Your task to perform on an android device: toggle show notifications on the lock screen Image 0: 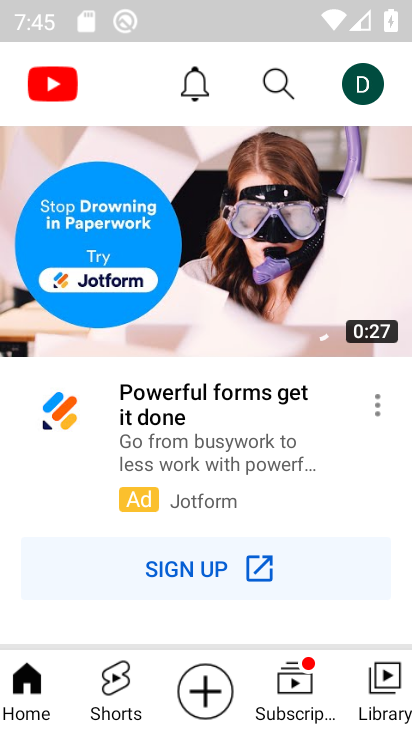
Step 0: press home button
Your task to perform on an android device: toggle show notifications on the lock screen Image 1: 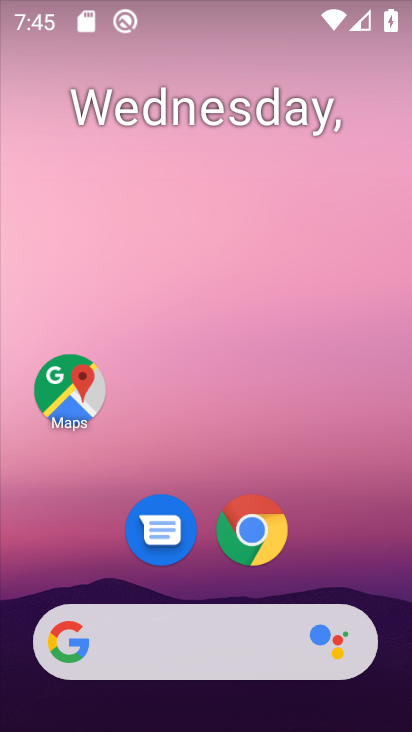
Step 1: drag from (390, 646) to (338, 139)
Your task to perform on an android device: toggle show notifications on the lock screen Image 2: 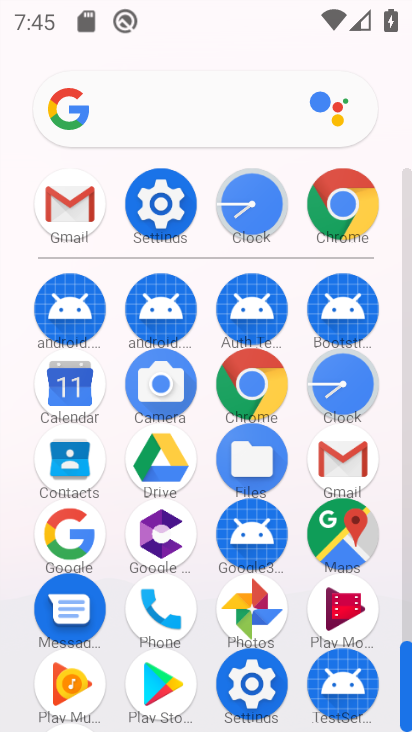
Step 2: click (270, 669)
Your task to perform on an android device: toggle show notifications on the lock screen Image 3: 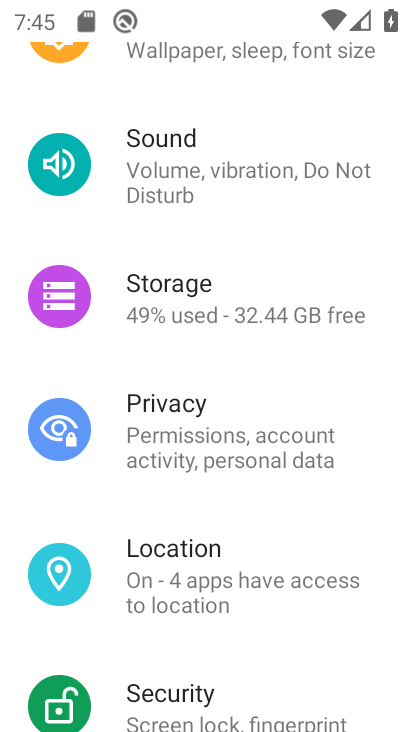
Step 3: drag from (270, 669) to (307, 310)
Your task to perform on an android device: toggle show notifications on the lock screen Image 4: 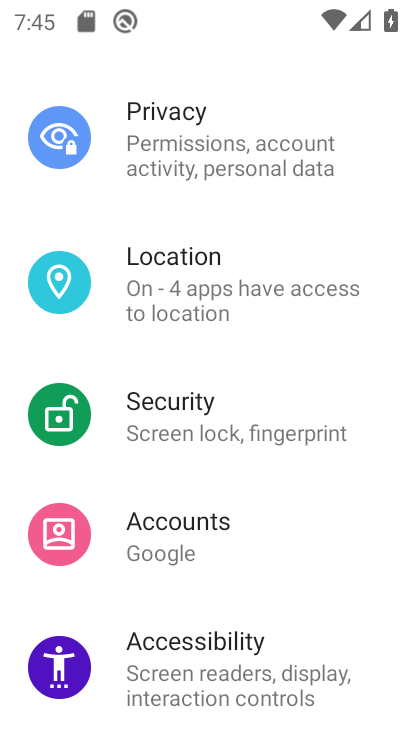
Step 4: drag from (229, 202) to (275, 661)
Your task to perform on an android device: toggle show notifications on the lock screen Image 5: 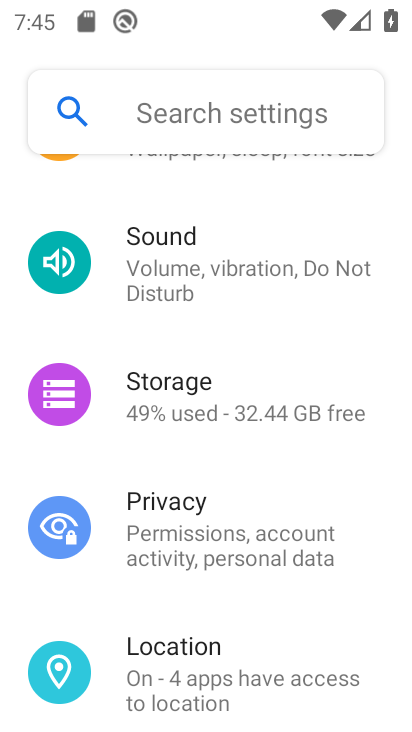
Step 5: drag from (240, 317) to (251, 648)
Your task to perform on an android device: toggle show notifications on the lock screen Image 6: 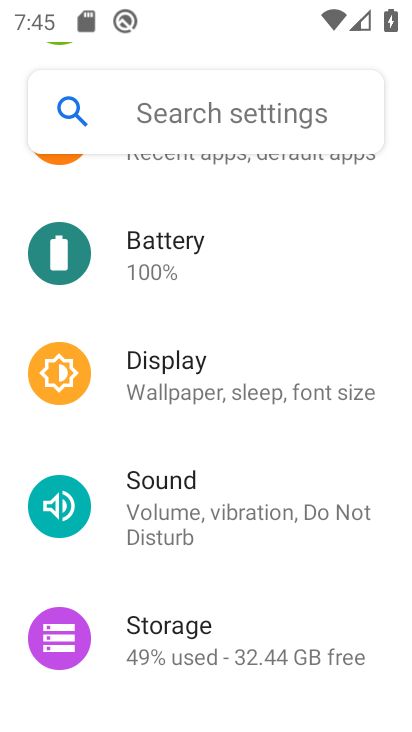
Step 6: drag from (232, 208) to (227, 672)
Your task to perform on an android device: toggle show notifications on the lock screen Image 7: 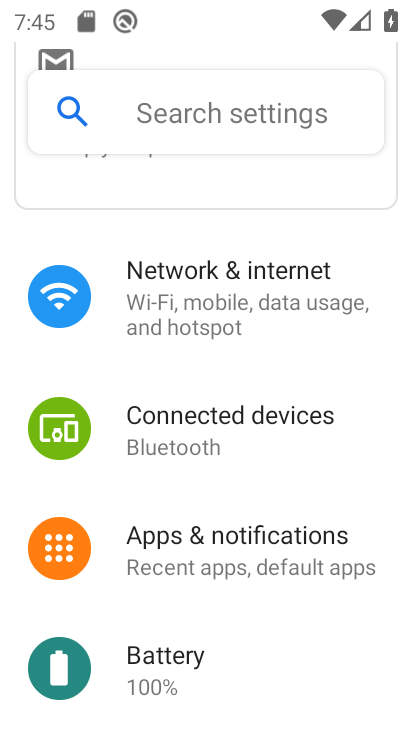
Step 7: click (258, 527)
Your task to perform on an android device: toggle show notifications on the lock screen Image 8: 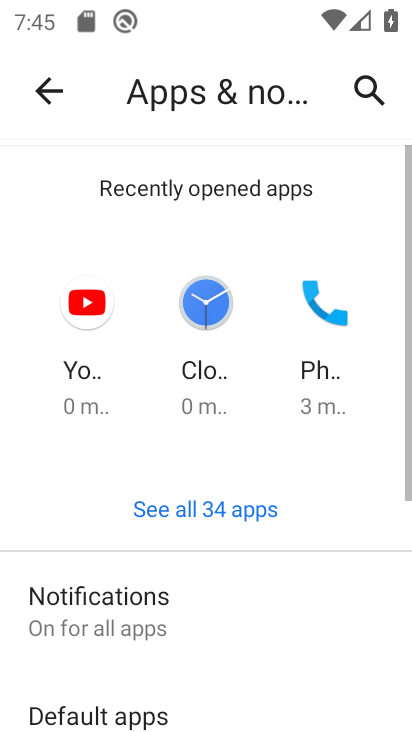
Step 8: drag from (210, 657) to (265, 140)
Your task to perform on an android device: toggle show notifications on the lock screen Image 9: 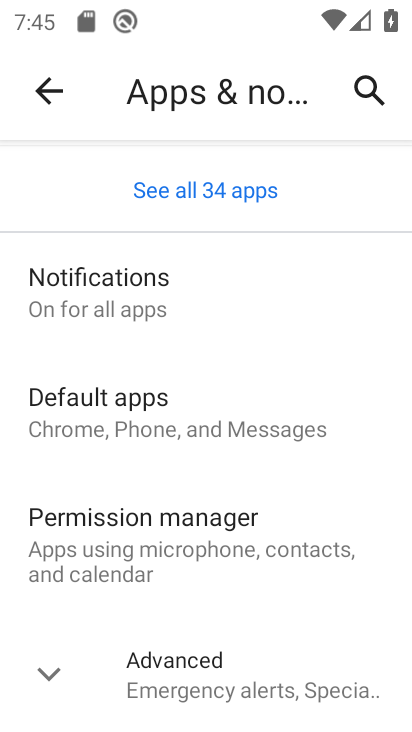
Step 9: click (153, 329)
Your task to perform on an android device: toggle show notifications on the lock screen Image 10: 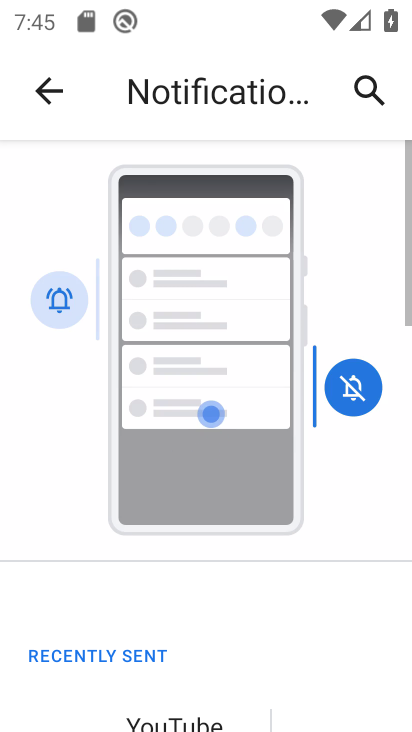
Step 10: drag from (210, 684) to (224, 47)
Your task to perform on an android device: toggle show notifications on the lock screen Image 11: 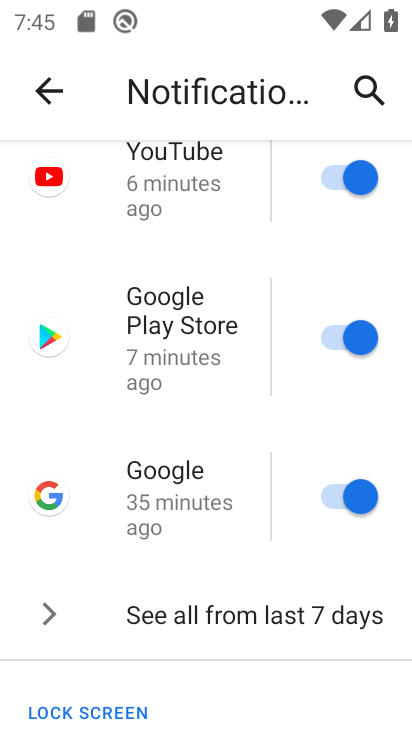
Step 11: drag from (249, 563) to (270, 148)
Your task to perform on an android device: toggle show notifications on the lock screen Image 12: 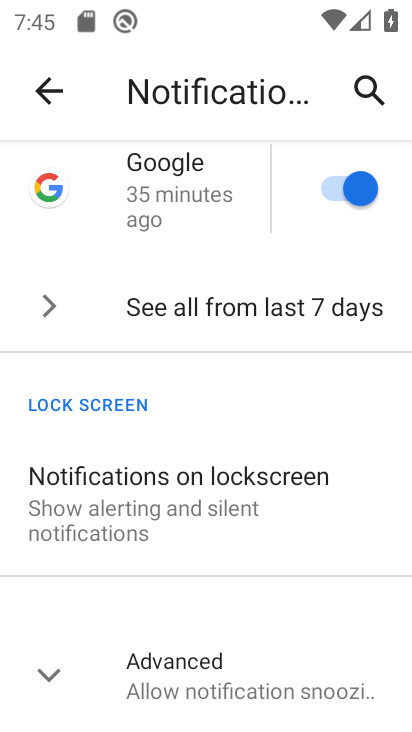
Step 12: click (233, 492)
Your task to perform on an android device: toggle show notifications on the lock screen Image 13: 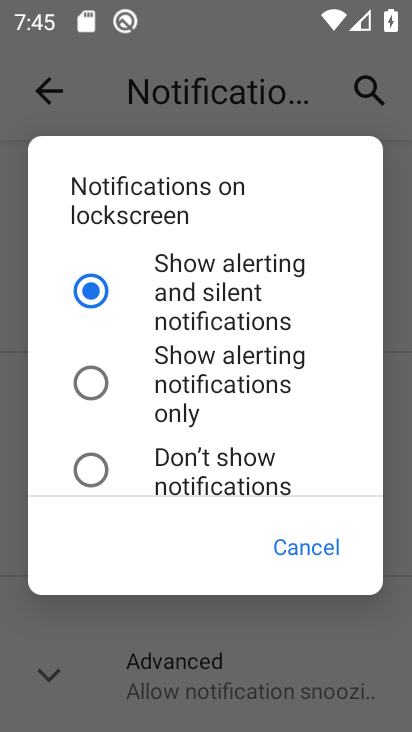
Step 13: click (202, 407)
Your task to perform on an android device: toggle show notifications on the lock screen Image 14: 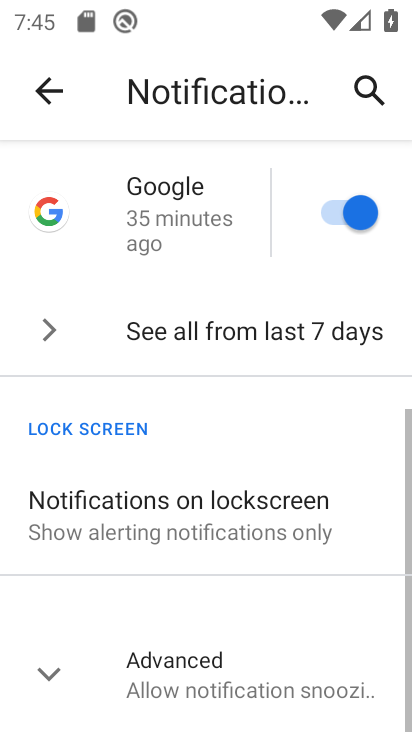
Step 14: task complete